Your task to perform on an android device: Open Yahoo.com Image 0: 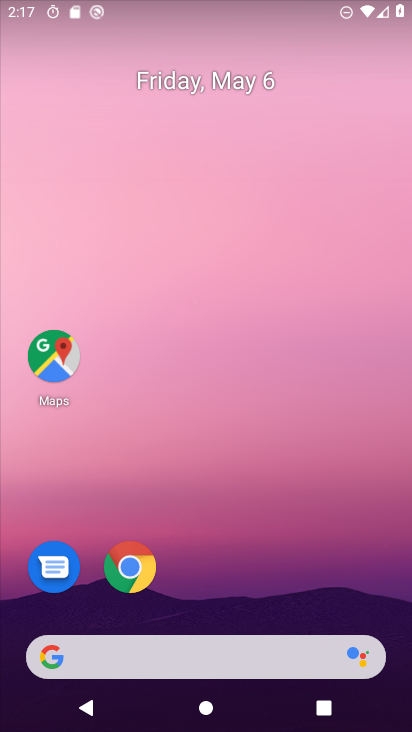
Step 0: drag from (278, 634) to (350, 258)
Your task to perform on an android device: Open Yahoo.com Image 1: 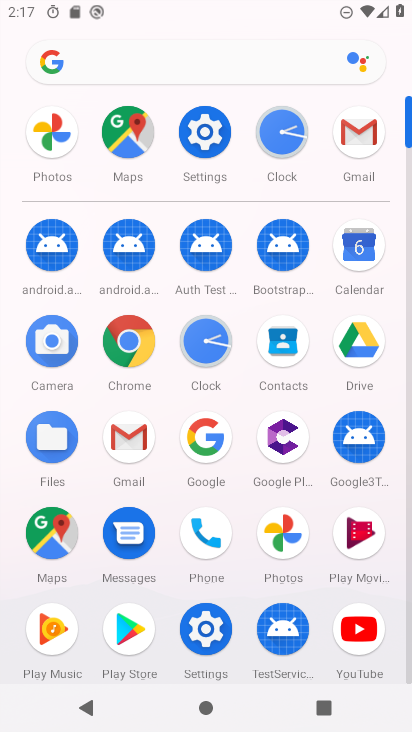
Step 1: click (134, 345)
Your task to perform on an android device: Open Yahoo.com Image 2: 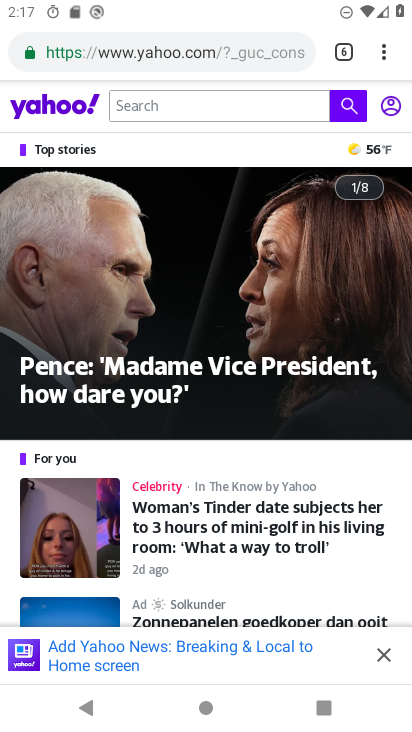
Step 2: click (148, 58)
Your task to perform on an android device: Open Yahoo.com Image 3: 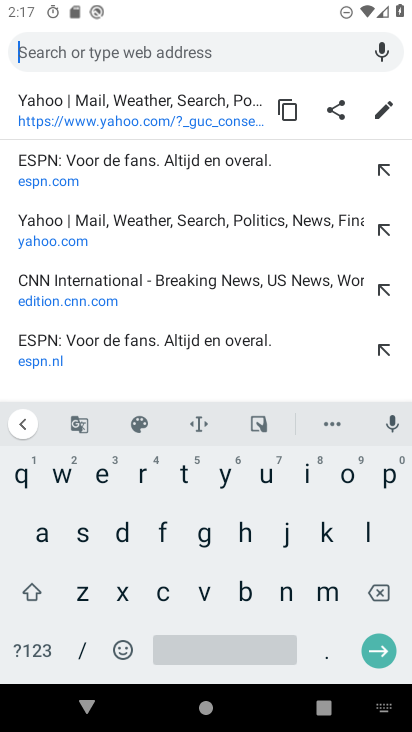
Step 3: click (92, 100)
Your task to perform on an android device: Open Yahoo.com Image 4: 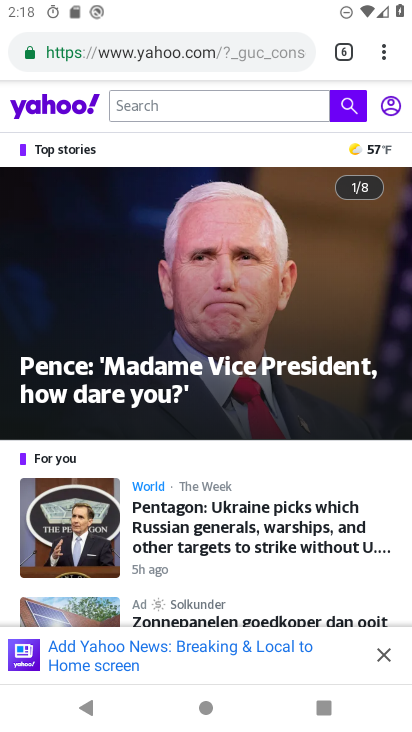
Step 4: task complete